Your task to perform on an android device: turn pop-ups on in chrome Image 0: 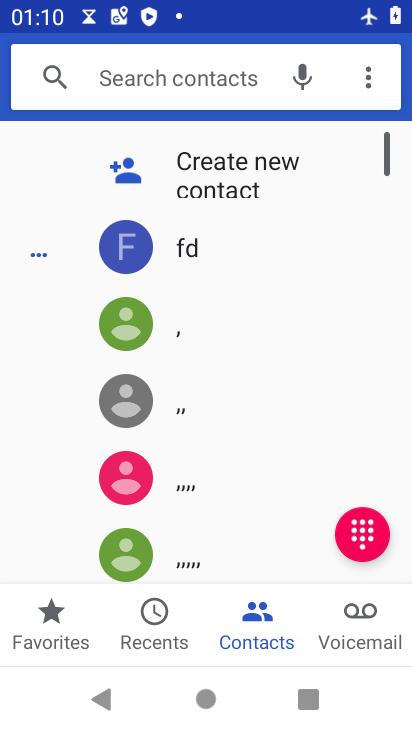
Step 0: press home button
Your task to perform on an android device: turn pop-ups on in chrome Image 1: 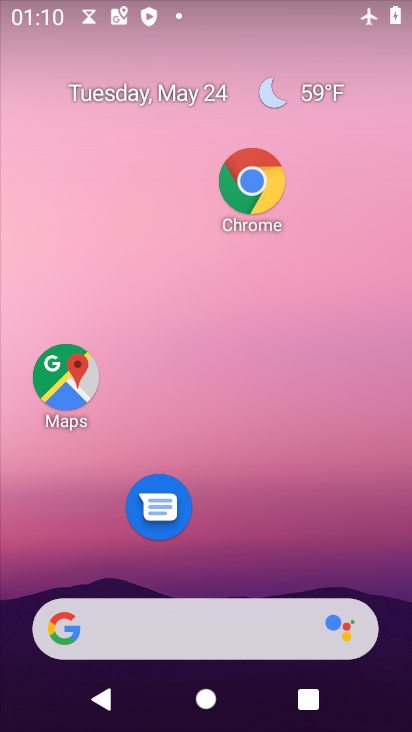
Step 1: drag from (267, 462) to (257, 259)
Your task to perform on an android device: turn pop-ups on in chrome Image 2: 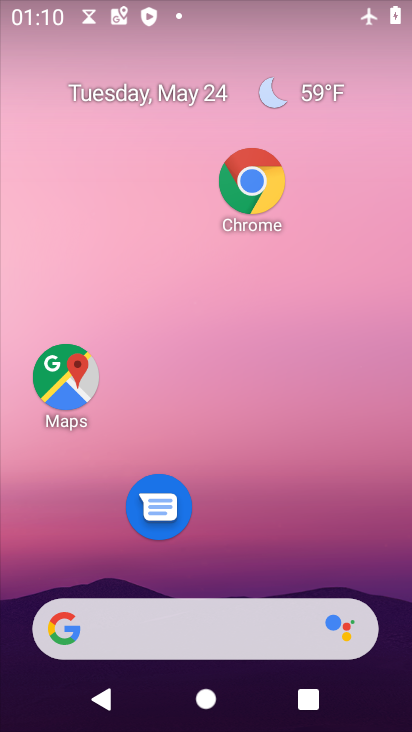
Step 2: click (246, 178)
Your task to perform on an android device: turn pop-ups on in chrome Image 3: 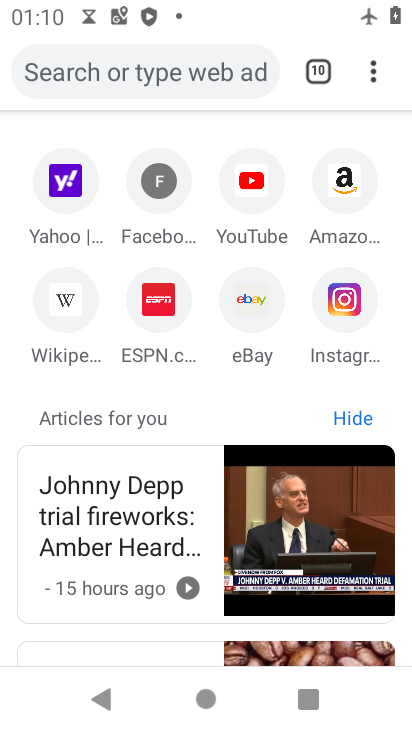
Step 3: click (385, 64)
Your task to perform on an android device: turn pop-ups on in chrome Image 4: 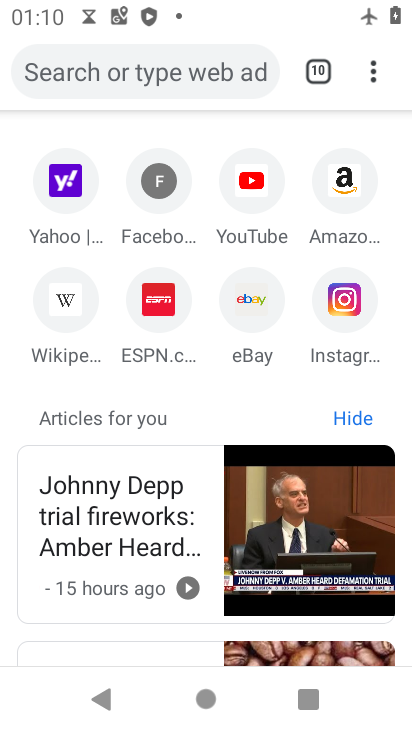
Step 4: click (382, 69)
Your task to perform on an android device: turn pop-ups on in chrome Image 5: 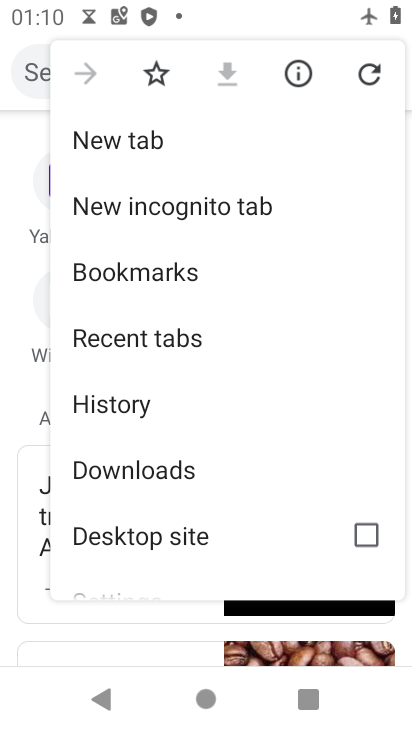
Step 5: drag from (158, 521) to (269, 182)
Your task to perform on an android device: turn pop-ups on in chrome Image 6: 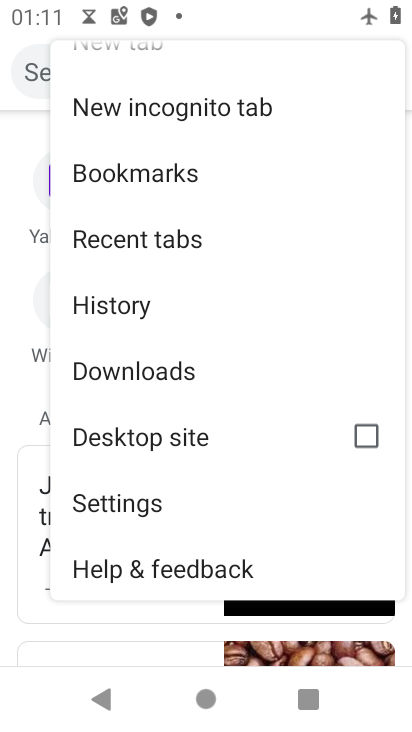
Step 6: click (166, 493)
Your task to perform on an android device: turn pop-ups on in chrome Image 7: 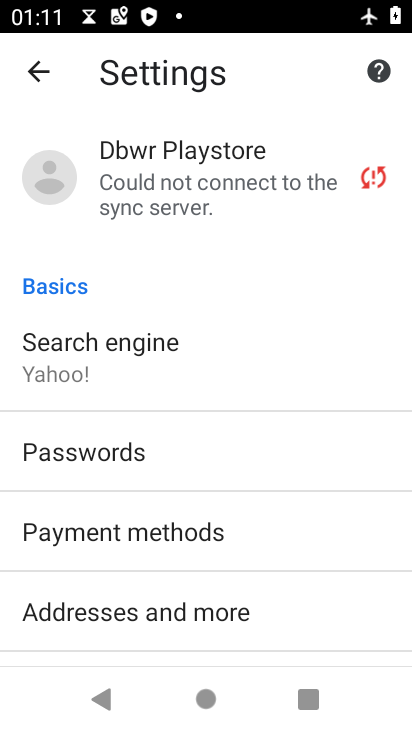
Step 7: drag from (146, 529) to (283, 223)
Your task to perform on an android device: turn pop-ups on in chrome Image 8: 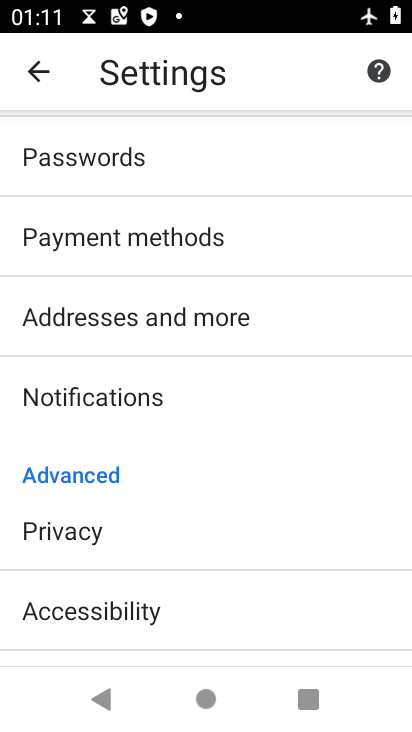
Step 8: drag from (241, 524) to (340, 219)
Your task to perform on an android device: turn pop-ups on in chrome Image 9: 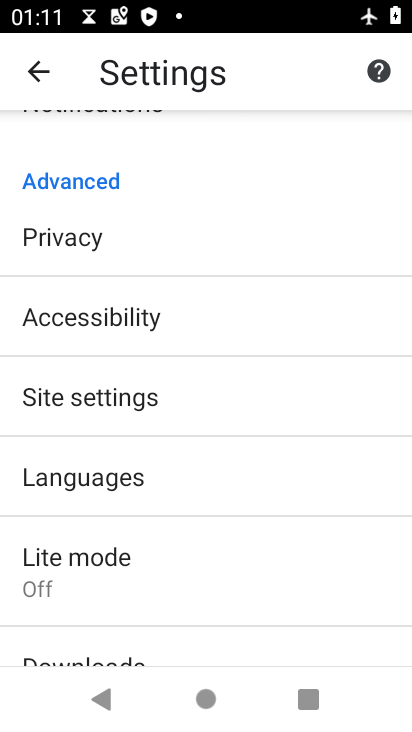
Step 9: drag from (221, 465) to (321, 137)
Your task to perform on an android device: turn pop-ups on in chrome Image 10: 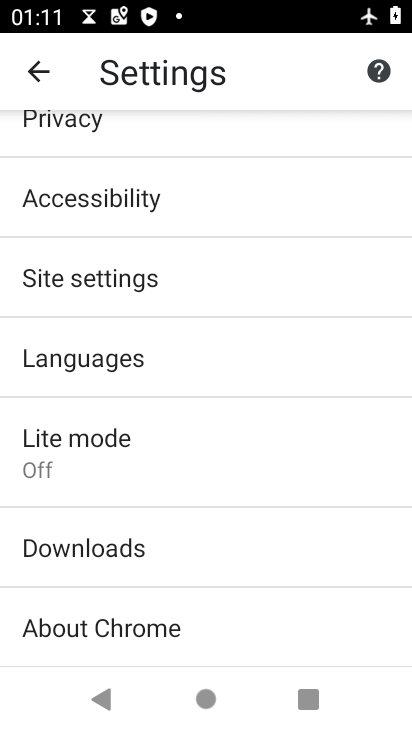
Step 10: click (108, 279)
Your task to perform on an android device: turn pop-ups on in chrome Image 11: 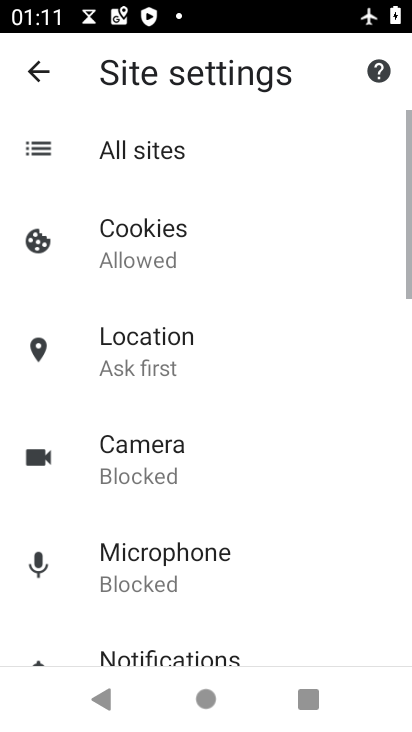
Step 11: drag from (241, 604) to (302, 166)
Your task to perform on an android device: turn pop-ups on in chrome Image 12: 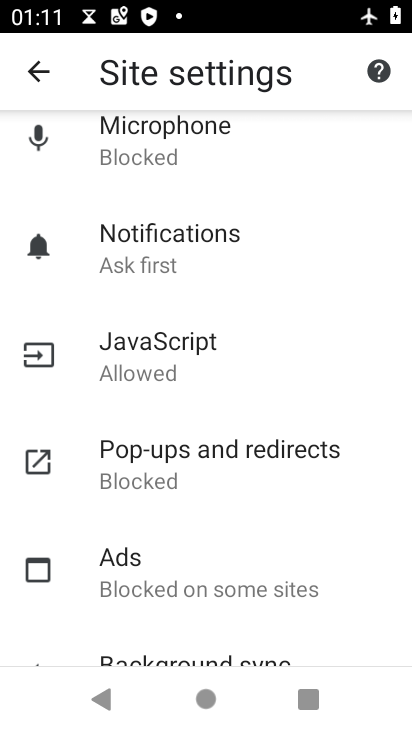
Step 12: click (226, 467)
Your task to perform on an android device: turn pop-ups on in chrome Image 13: 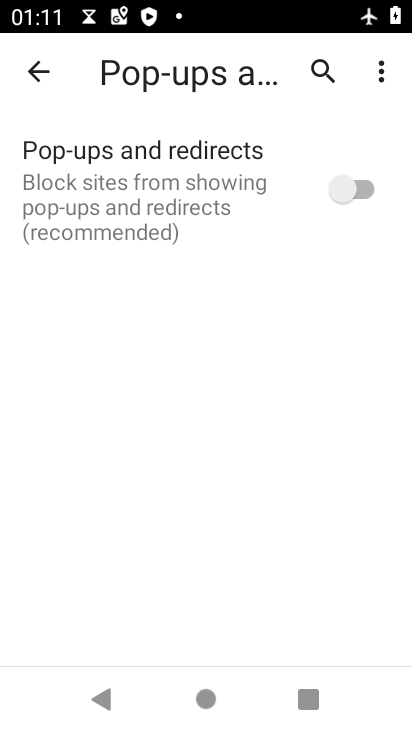
Step 13: click (343, 215)
Your task to perform on an android device: turn pop-ups on in chrome Image 14: 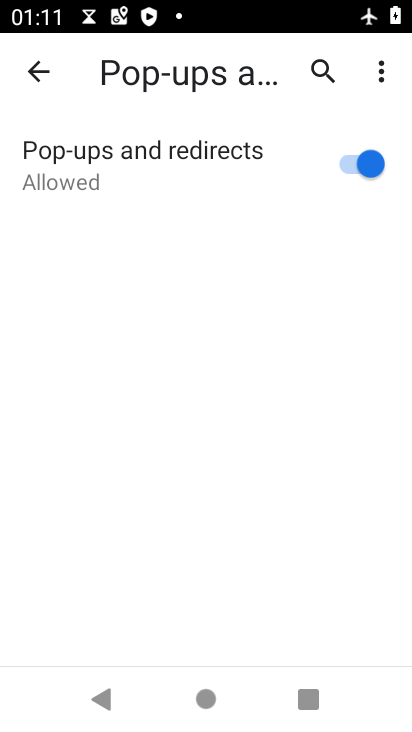
Step 14: task complete